Your task to perform on an android device: See recent photos Image 0: 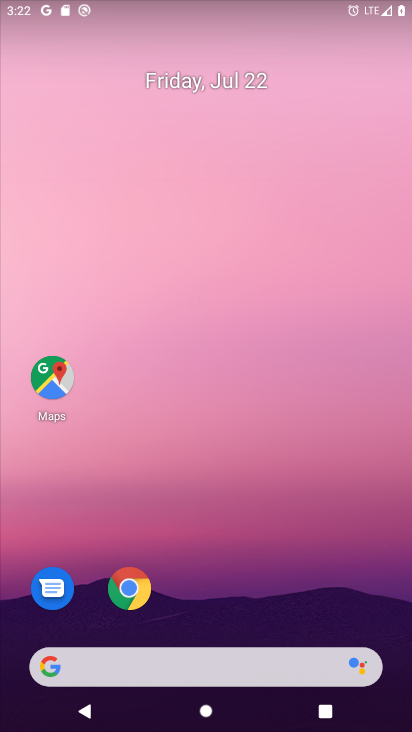
Step 0: drag from (293, 555) to (305, 24)
Your task to perform on an android device: See recent photos Image 1: 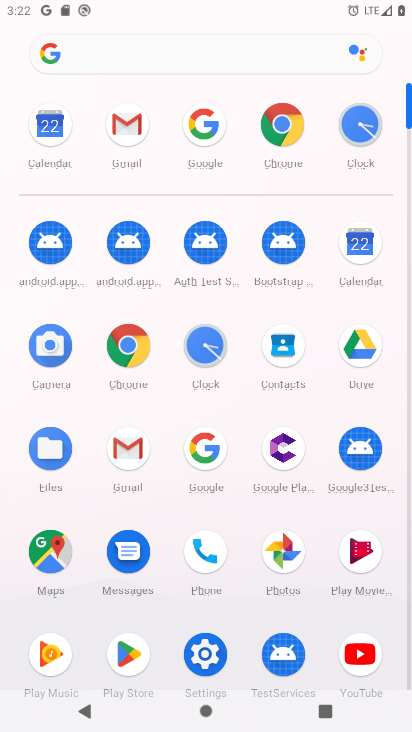
Step 1: click (275, 541)
Your task to perform on an android device: See recent photos Image 2: 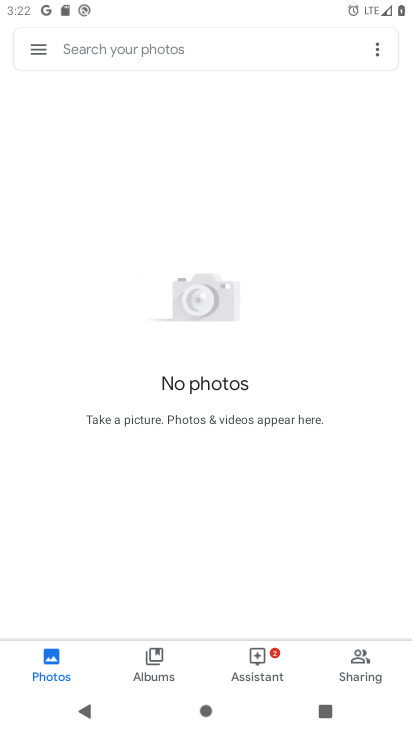
Step 2: click (45, 654)
Your task to perform on an android device: See recent photos Image 3: 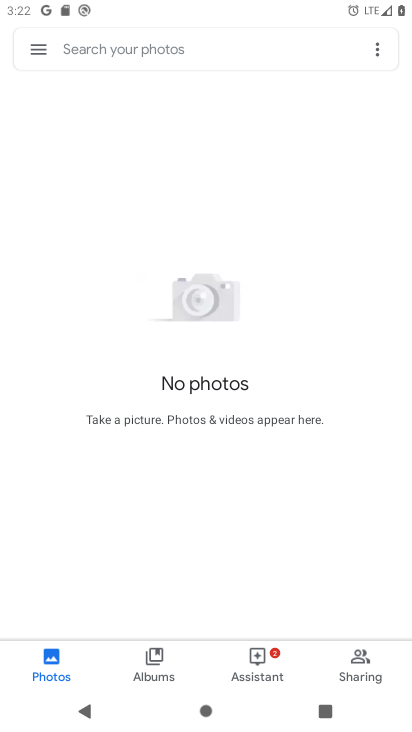
Step 3: task complete